Your task to perform on an android device: Search for seafood restaurants on Google Maps Image 0: 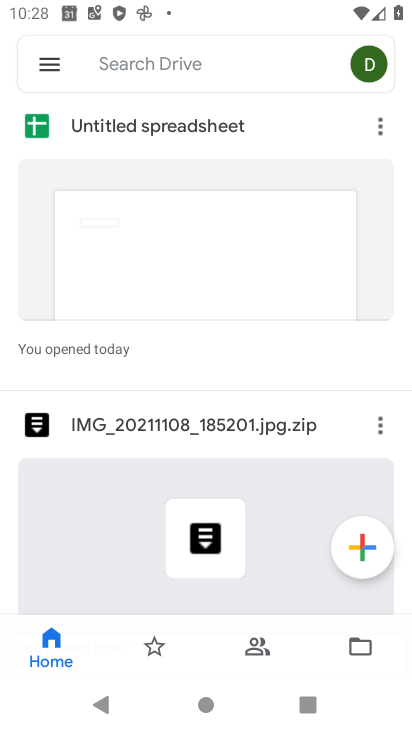
Step 0: press home button
Your task to perform on an android device: Search for seafood restaurants on Google Maps Image 1: 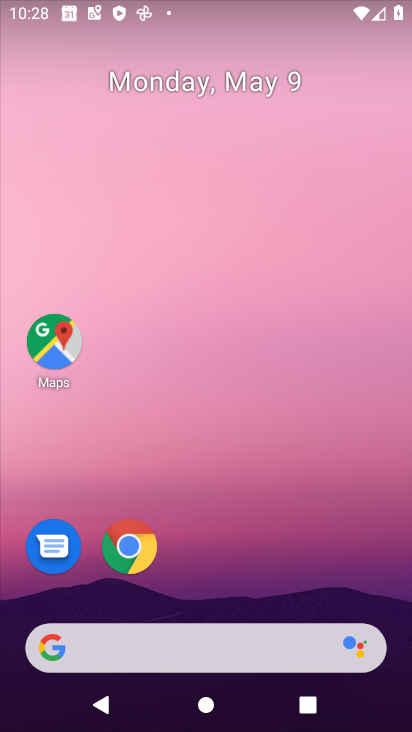
Step 1: click (60, 344)
Your task to perform on an android device: Search for seafood restaurants on Google Maps Image 2: 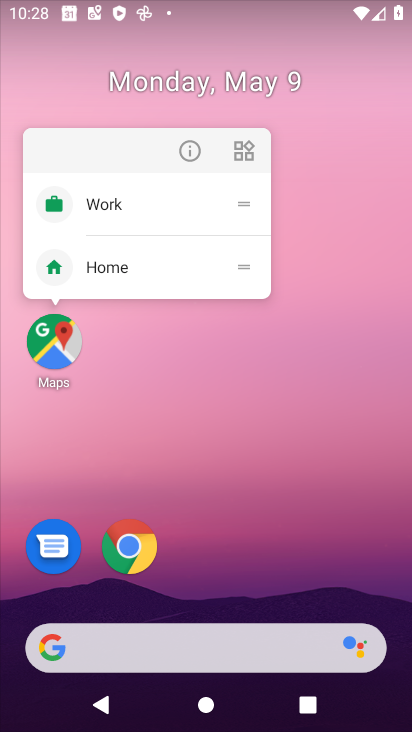
Step 2: click (60, 344)
Your task to perform on an android device: Search for seafood restaurants on Google Maps Image 3: 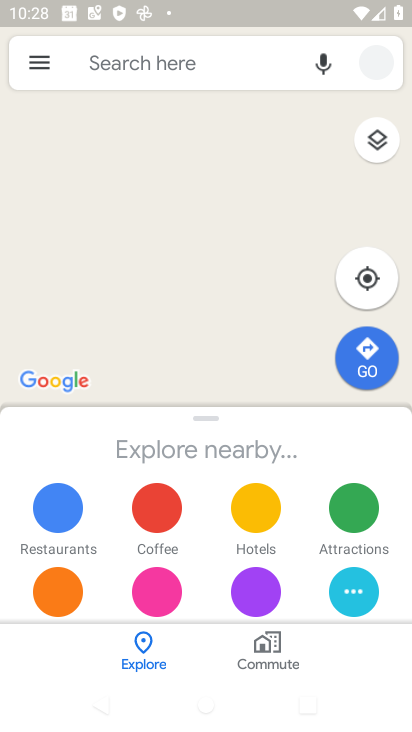
Step 3: click (214, 61)
Your task to perform on an android device: Search for seafood restaurants on Google Maps Image 4: 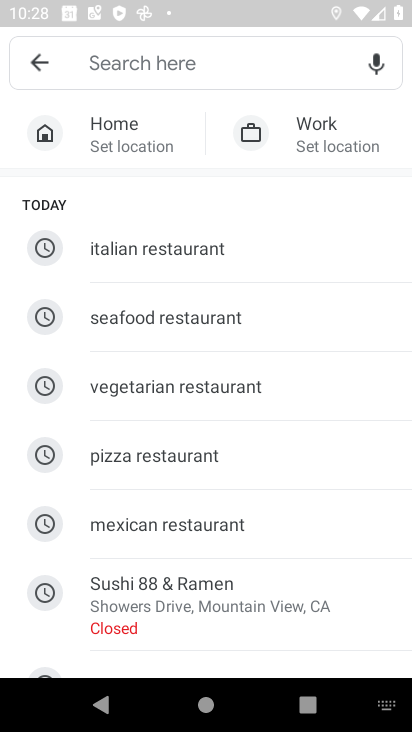
Step 4: click (197, 311)
Your task to perform on an android device: Search for seafood restaurants on Google Maps Image 5: 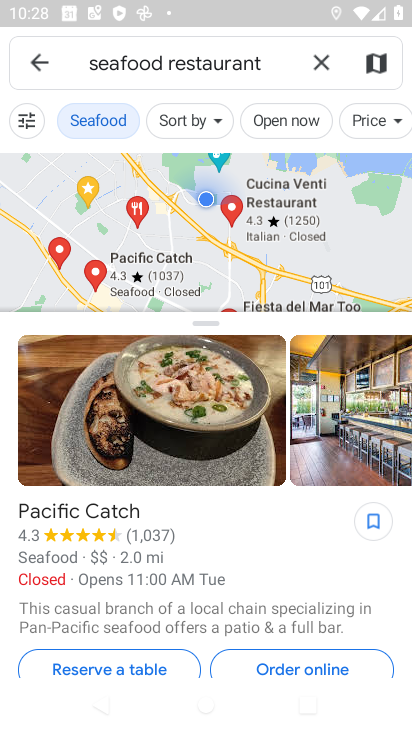
Step 5: task complete